Your task to perform on an android device: change the clock style Image 0: 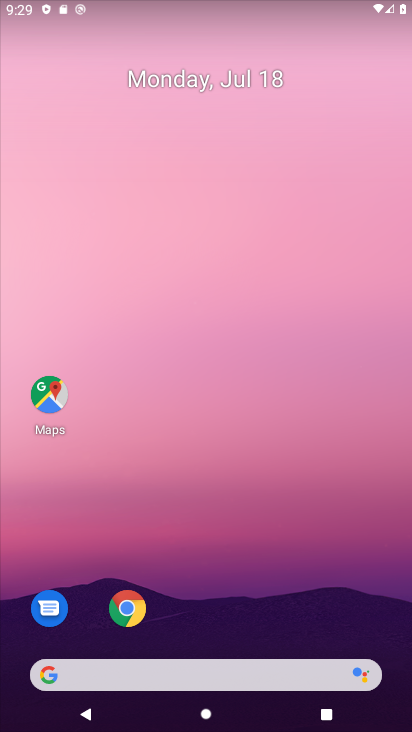
Step 0: drag from (320, 671) to (318, 210)
Your task to perform on an android device: change the clock style Image 1: 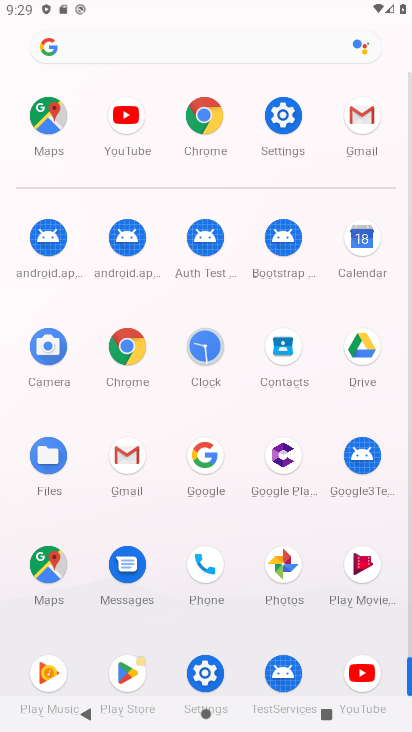
Step 1: click (200, 358)
Your task to perform on an android device: change the clock style Image 2: 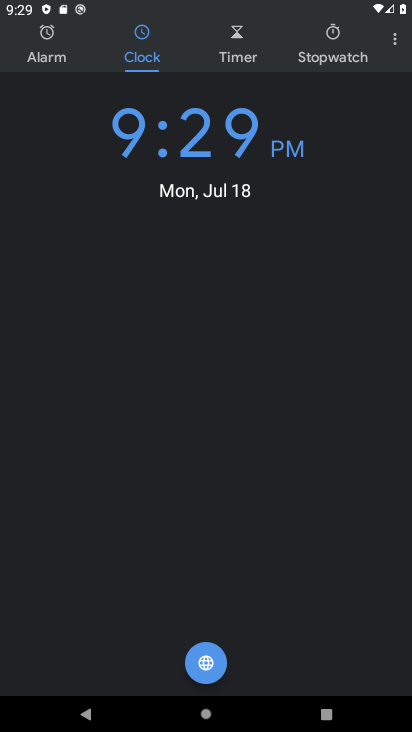
Step 2: click (394, 45)
Your task to perform on an android device: change the clock style Image 3: 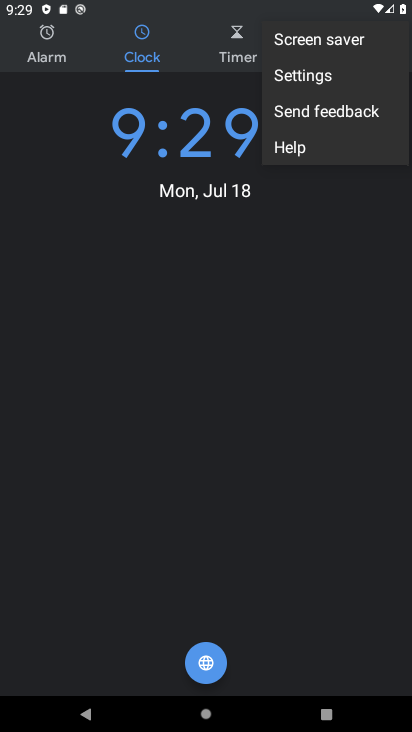
Step 3: click (310, 81)
Your task to perform on an android device: change the clock style Image 4: 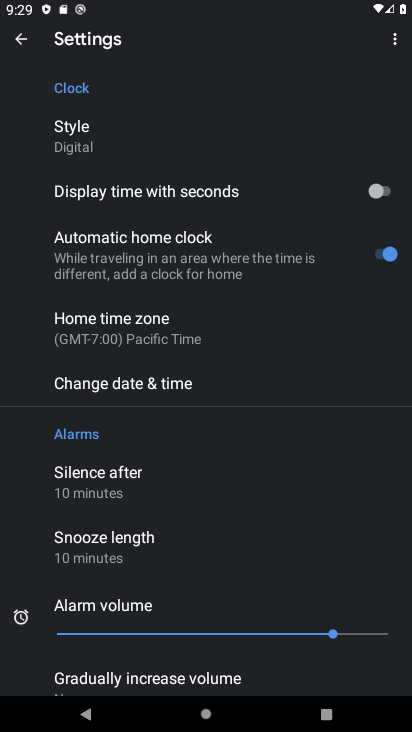
Step 4: click (102, 130)
Your task to perform on an android device: change the clock style Image 5: 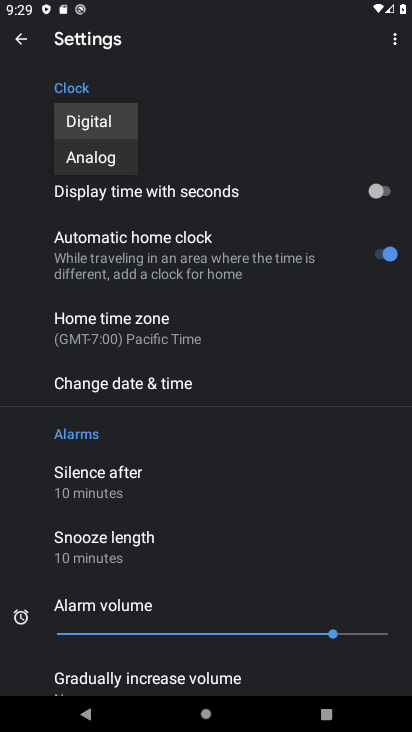
Step 5: click (87, 152)
Your task to perform on an android device: change the clock style Image 6: 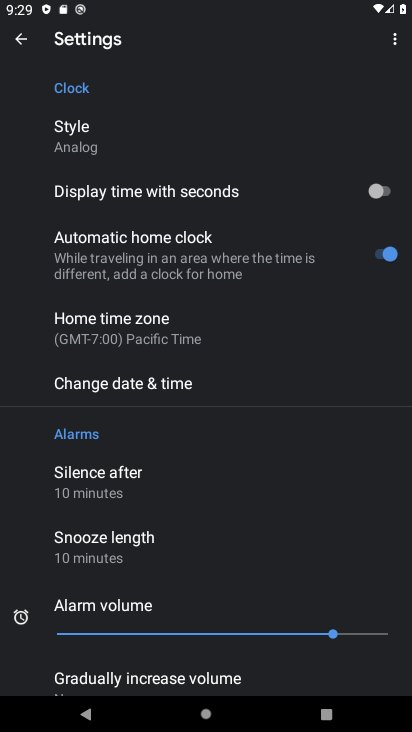
Step 6: task complete